Your task to perform on an android device: Open the calendar and show me this week's events? Image 0: 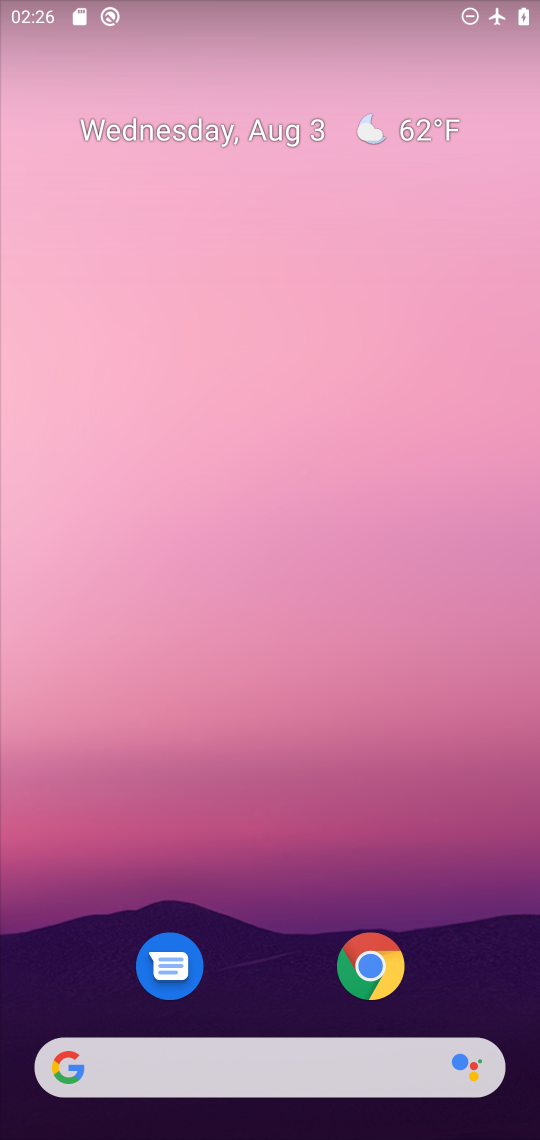
Step 0: drag from (237, 985) to (189, 344)
Your task to perform on an android device: Open the calendar and show me this week's events? Image 1: 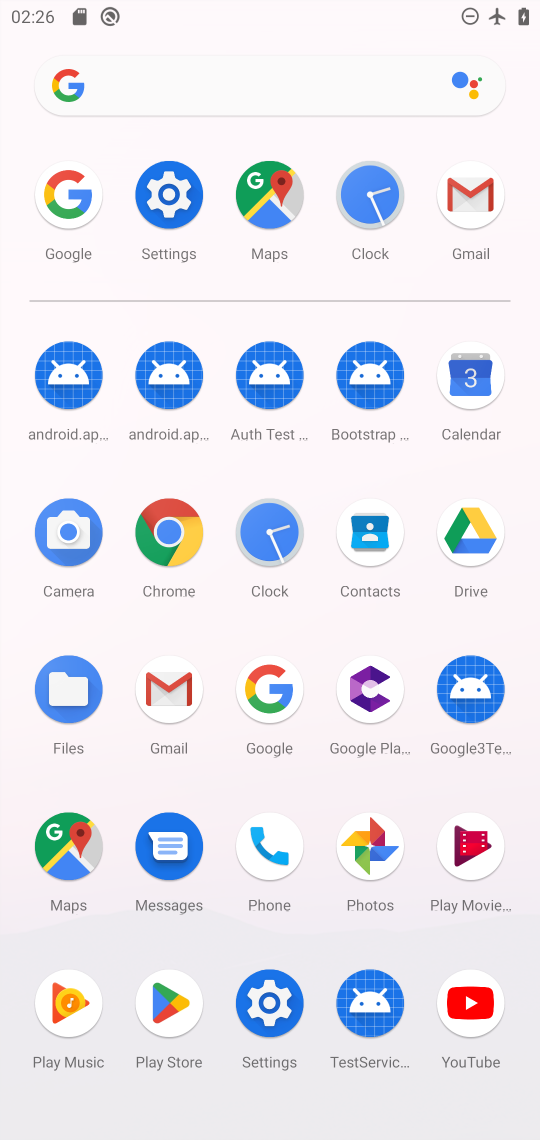
Step 1: click (458, 412)
Your task to perform on an android device: Open the calendar and show me this week's events? Image 2: 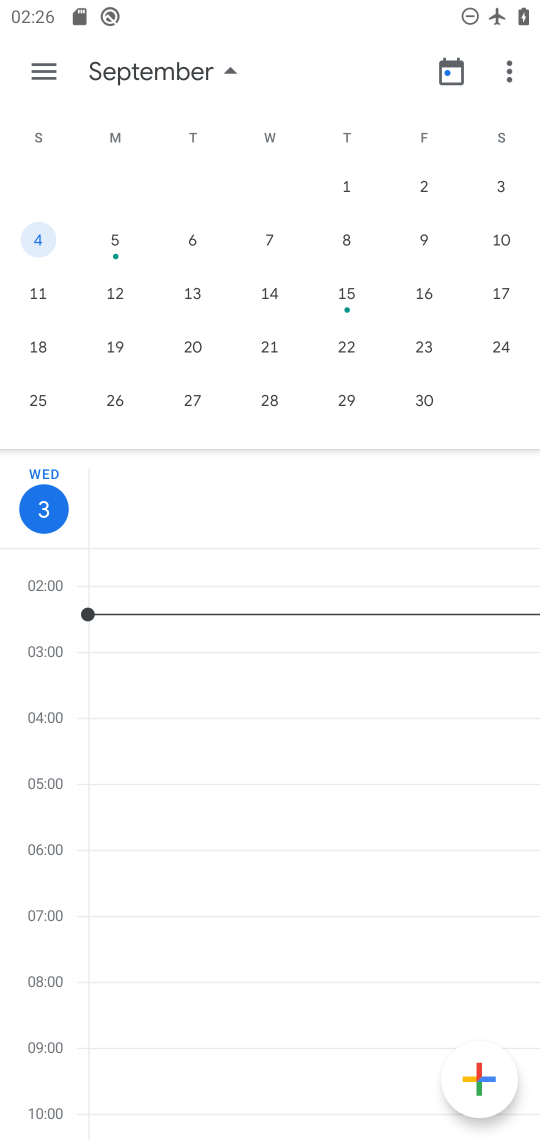
Step 2: drag from (64, 310) to (475, 302)
Your task to perform on an android device: Open the calendar and show me this week's events? Image 3: 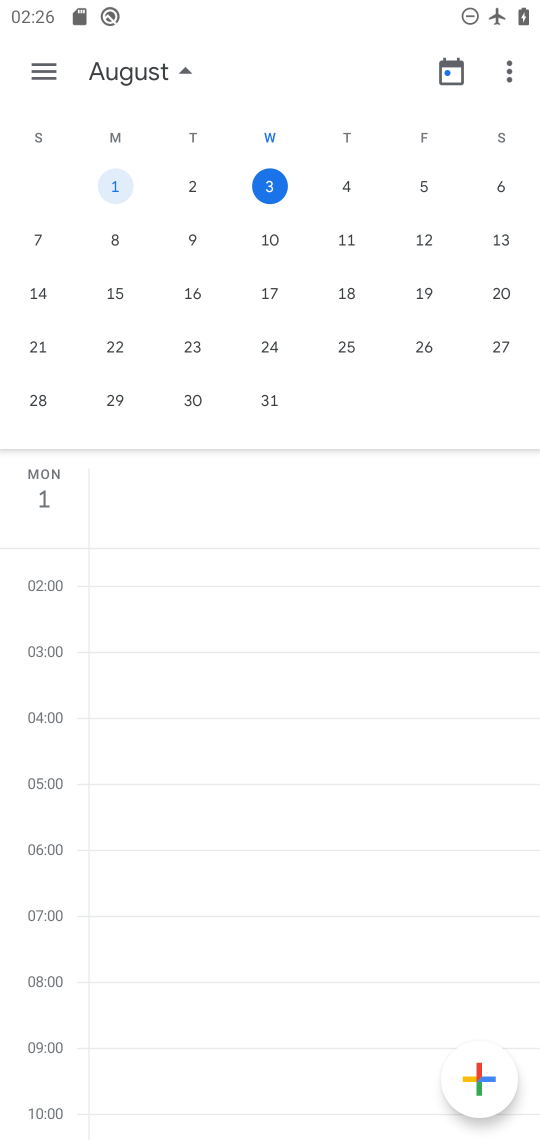
Step 3: click (491, 183)
Your task to perform on an android device: Open the calendar and show me this week's events? Image 4: 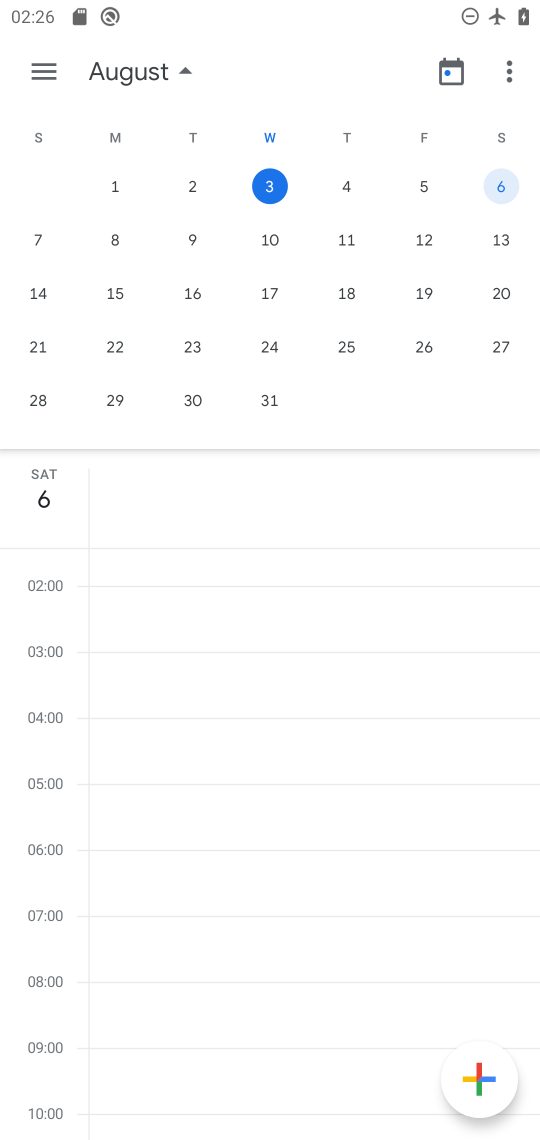
Step 4: click (483, 170)
Your task to perform on an android device: Open the calendar and show me this week's events? Image 5: 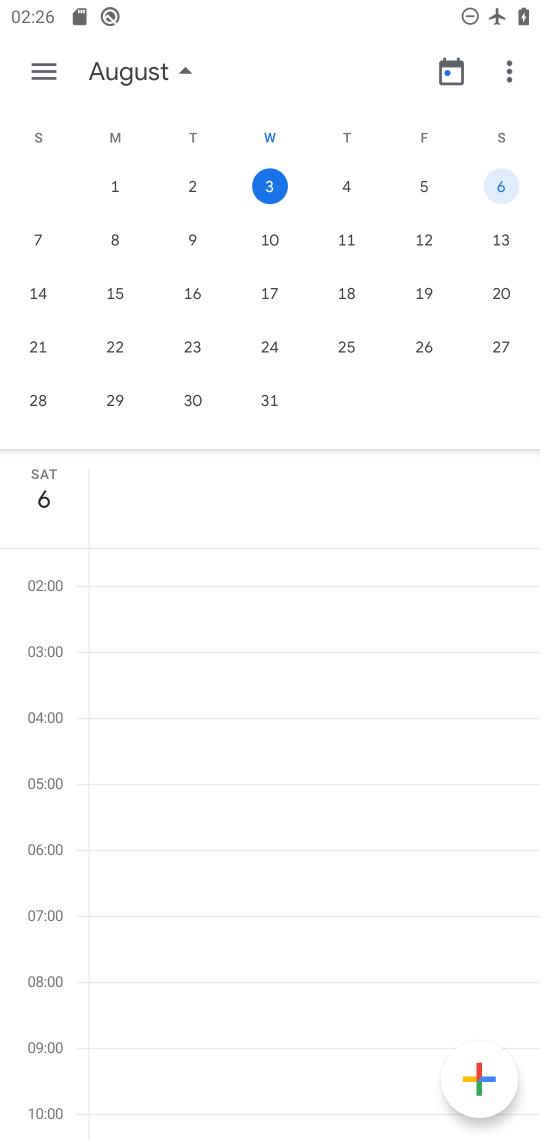
Step 5: task complete